Your task to perform on an android device: create a new album in the google photos Image 0: 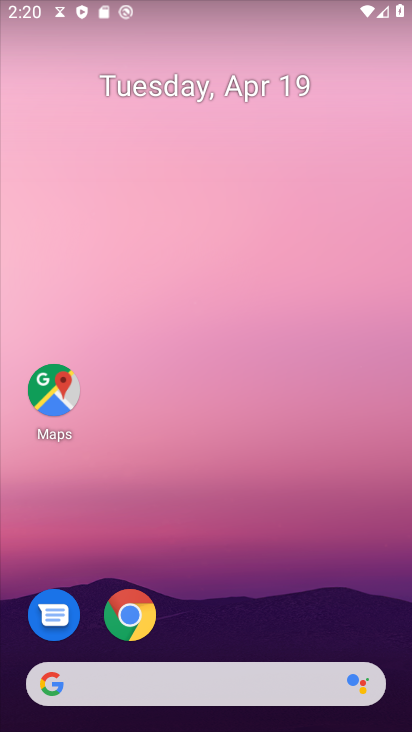
Step 0: drag from (203, 637) to (228, 75)
Your task to perform on an android device: create a new album in the google photos Image 1: 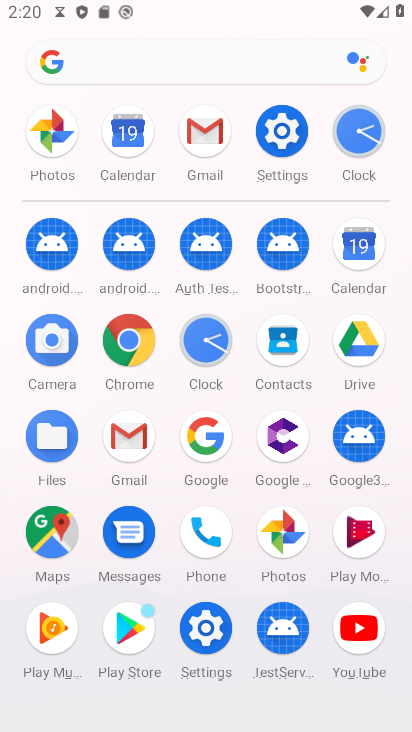
Step 1: click (275, 539)
Your task to perform on an android device: create a new album in the google photos Image 2: 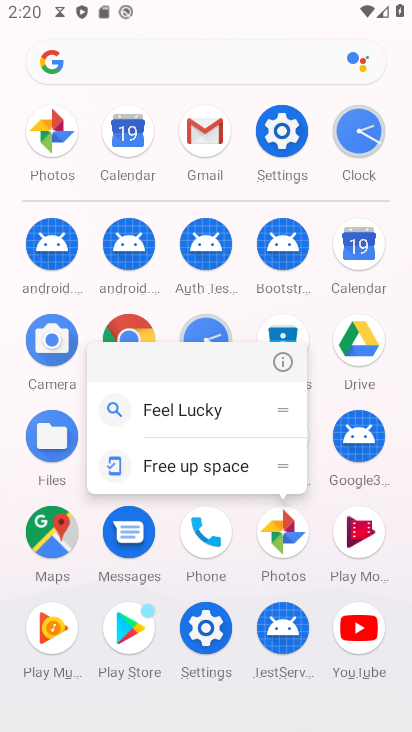
Step 2: click (283, 366)
Your task to perform on an android device: create a new album in the google photos Image 3: 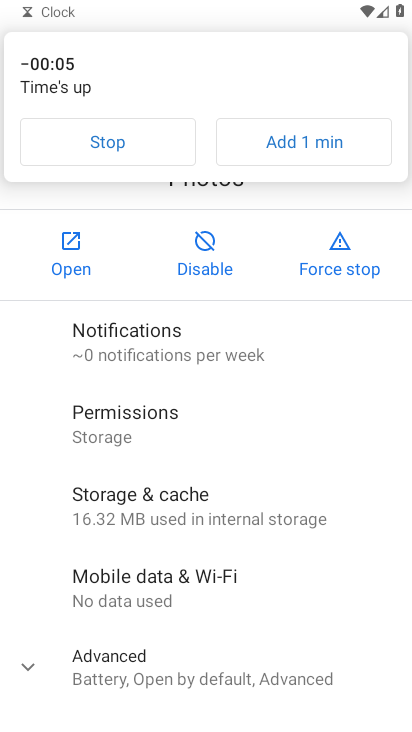
Step 3: click (130, 125)
Your task to perform on an android device: create a new album in the google photos Image 4: 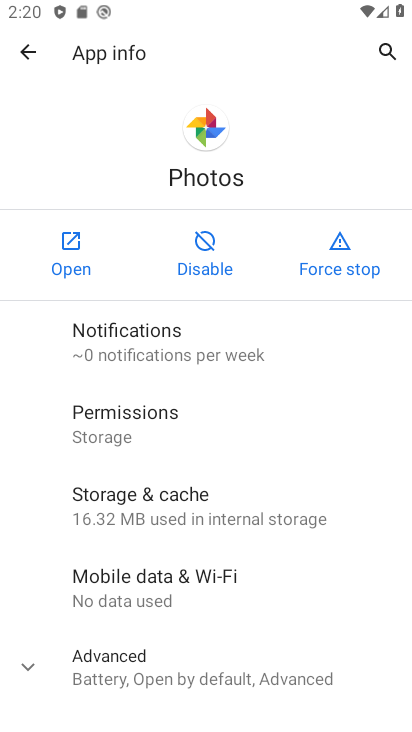
Step 4: click (66, 242)
Your task to perform on an android device: create a new album in the google photos Image 5: 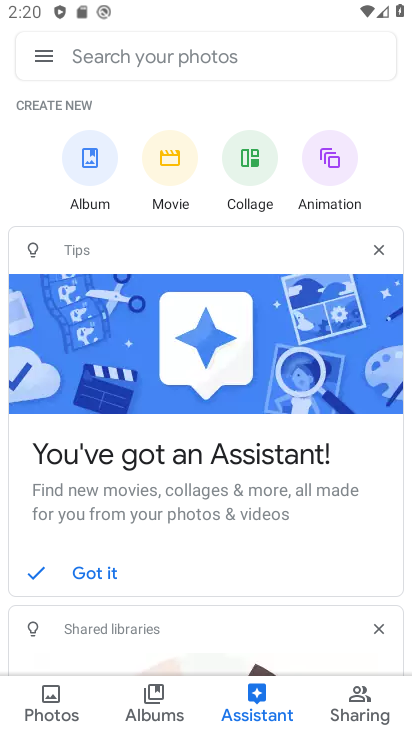
Step 5: click (365, 696)
Your task to perform on an android device: create a new album in the google photos Image 6: 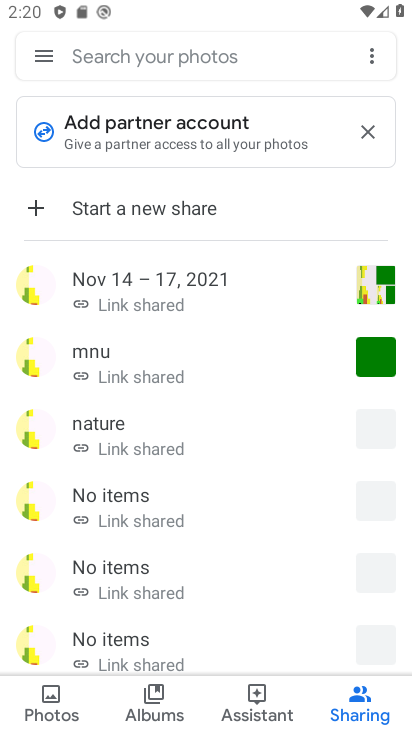
Step 6: click (368, 135)
Your task to perform on an android device: create a new album in the google photos Image 7: 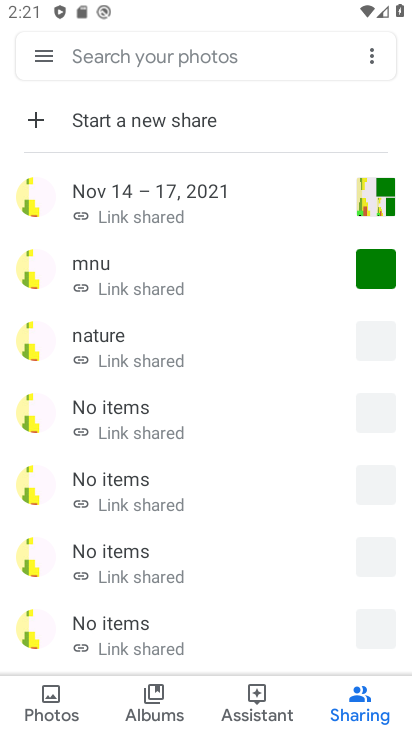
Step 7: click (129, 700)
Your task to perform on an android device: create a new album in the google photos Image 8: 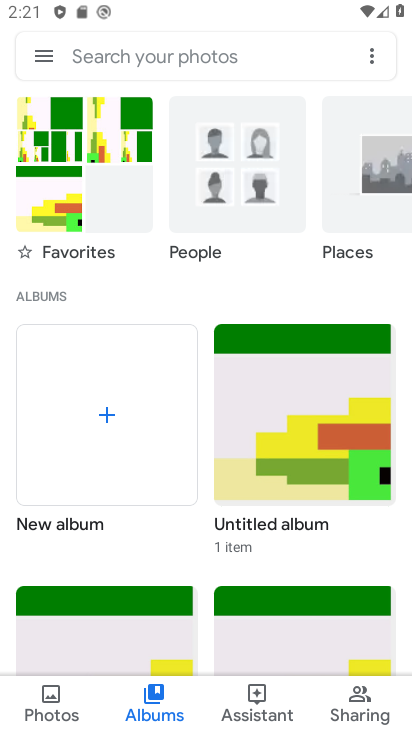
Step 8: drag from (168, 554) to (252, 246)
Your task to perform on an android device: create a new album in the google photos Image 9: 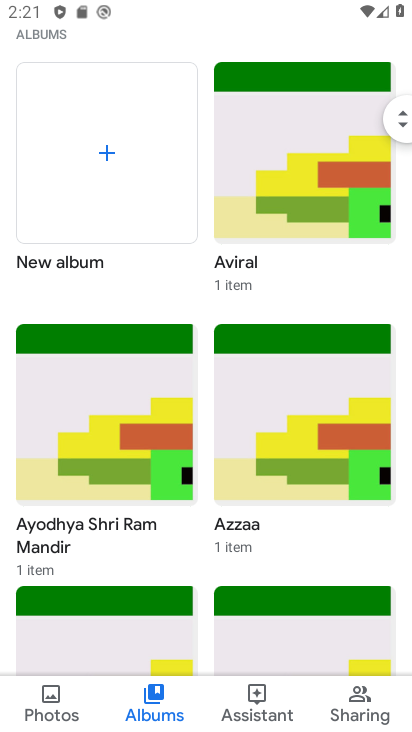
Step 9: click (112, 148)
Your task to perform on an android device: create a new album in the google photos Image 10: 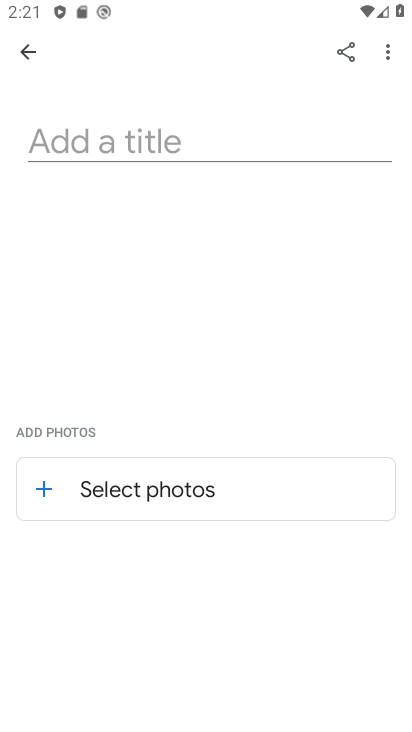
Step 10: click (182, 154)
Your task to perform on an android device: create a new album in the google photos Image 11: 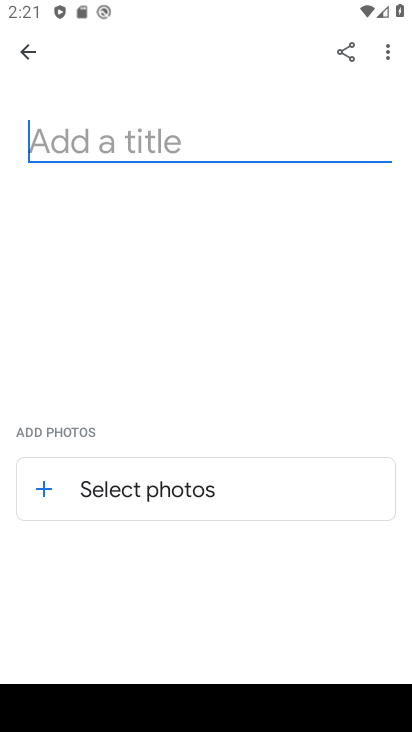
Step 11: type "aaa"
Your task to perform on an android device: create a new album in the google photos Image 12: 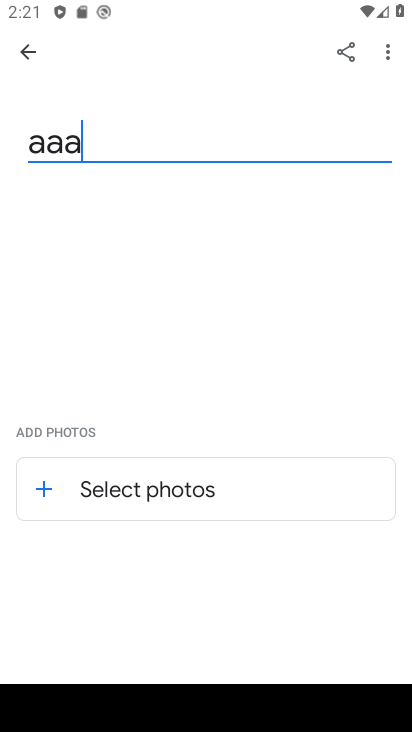
Step 12: click (50, 486)
Your task to perform on an android device: create a new album in the google photos Image 13: 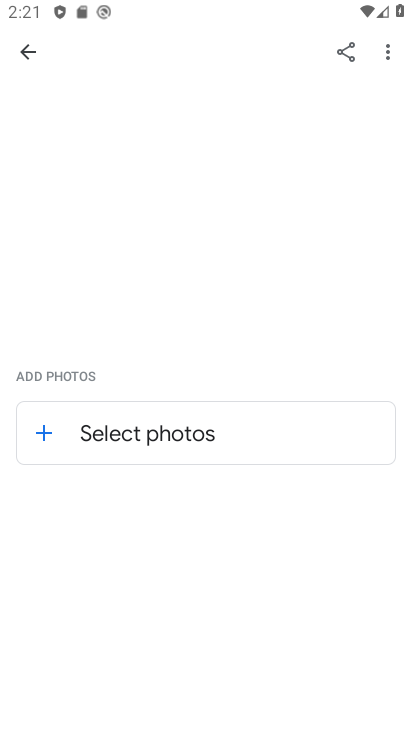
Step 13: click (35, 435)
Your task to perform on an android device: create a new album in the google photos Image 14: 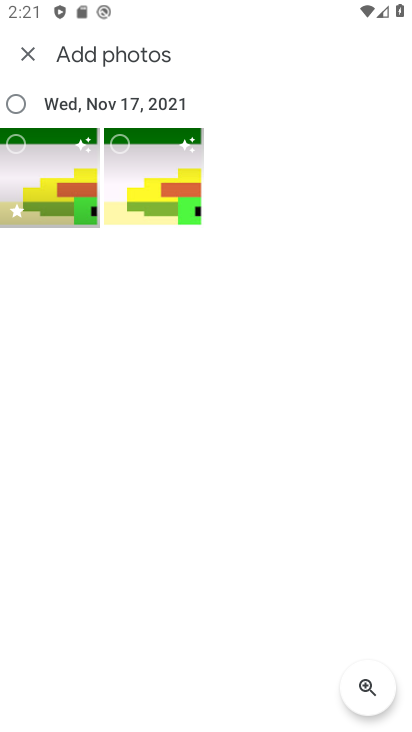
Step 14: click (154, 203)
Your task to perform on an android device: create a new album in the google photos Image 15: 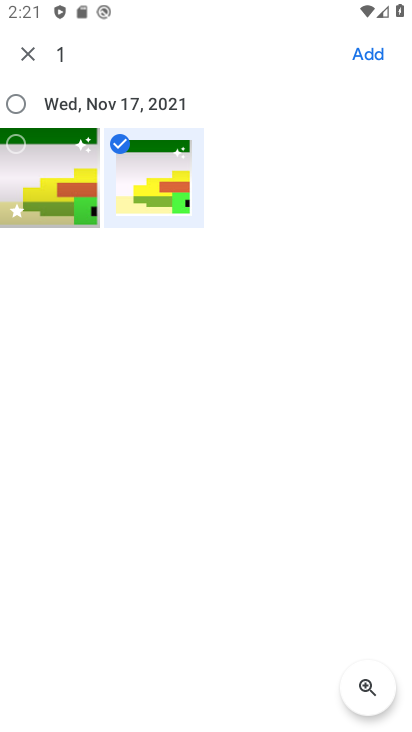
Step 15: click (37, 160)
Your task to perform on an android device: create a new album in the google photos Image 16: 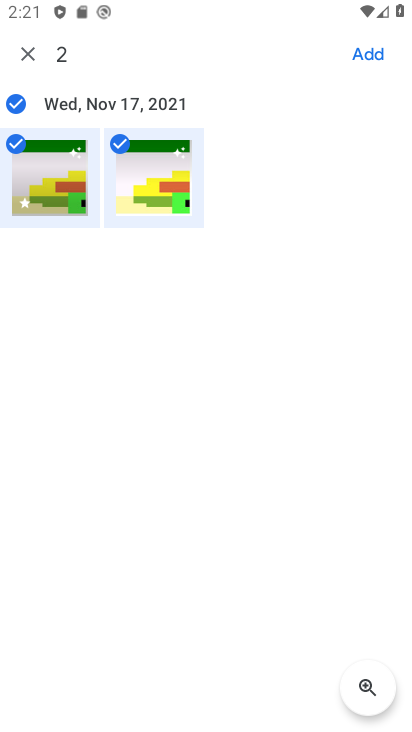
Step 16: click (364, 54)
Your task to perform on an android device: create a new album in the google photos Image 17: 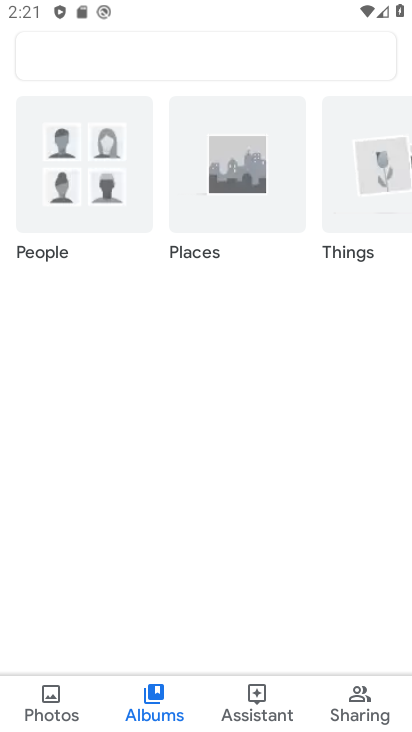
Step 17: task complete